Your task to perform on an android device: Search for Mexican restaurants on Maps Image 0: 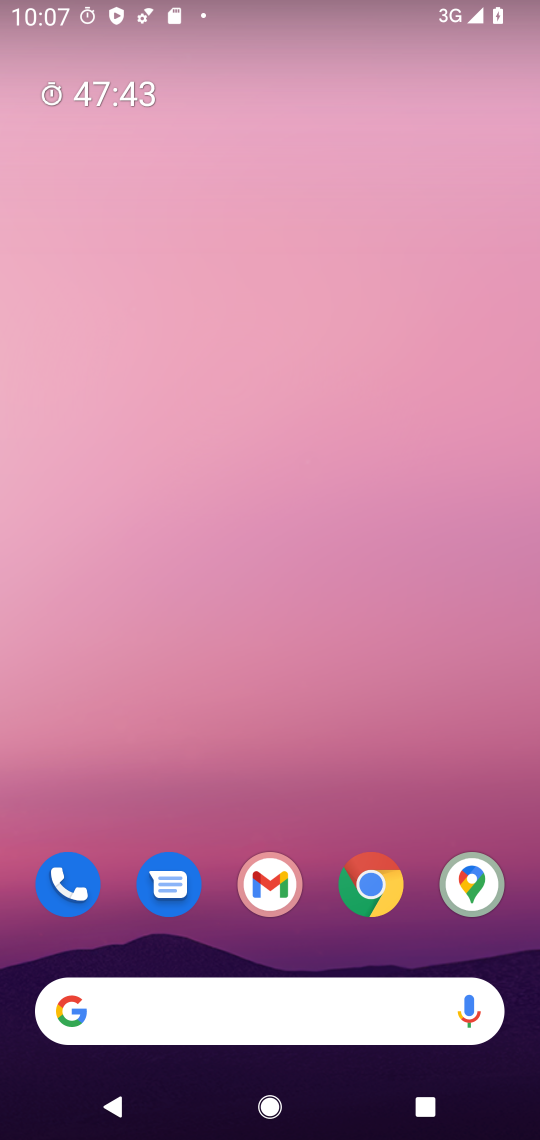
Step 0: click (470, 858)
Your task to perform on an android device: Search for Mexican restaurants on Maps Image 1: 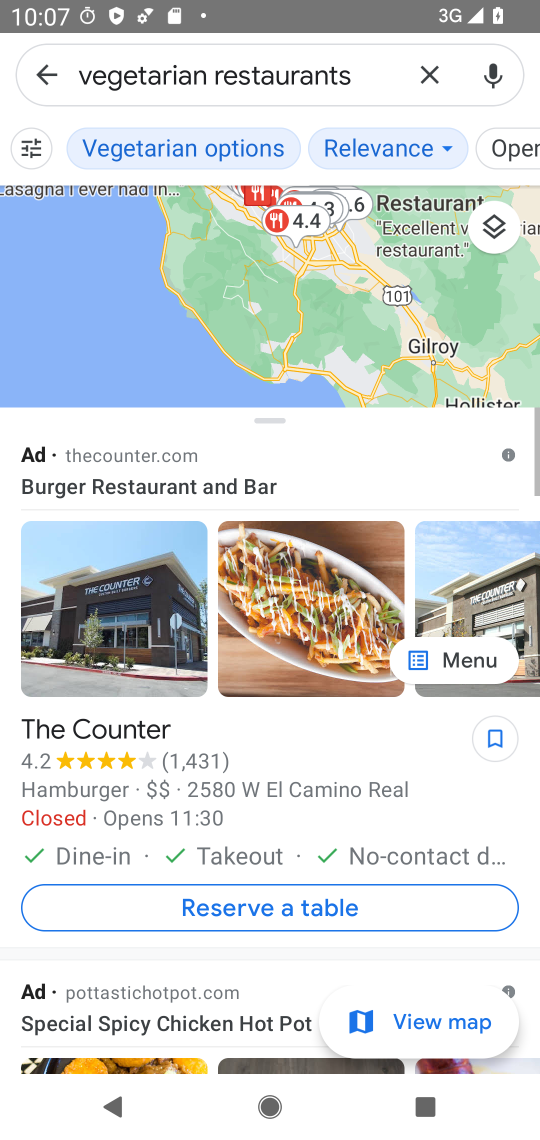
Step 1: click (423, 75)
Your task to perform on an android device: Search for Mexican restaurants on Maps Image 2: 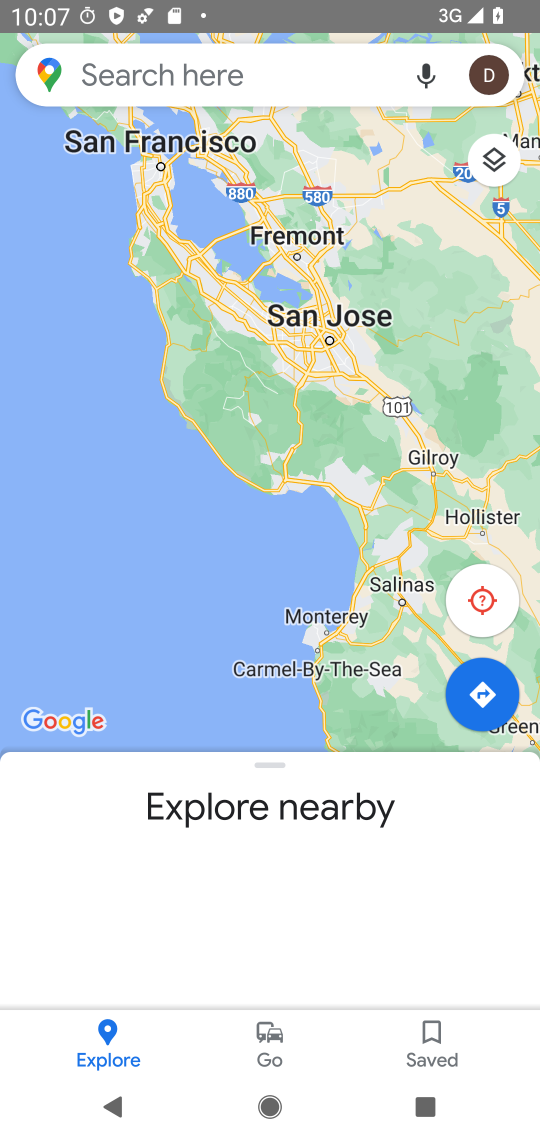
Step 2: click (356, 69)
Your task to perform on an android device: Search for Mexican restaurants on Maps Image 3: 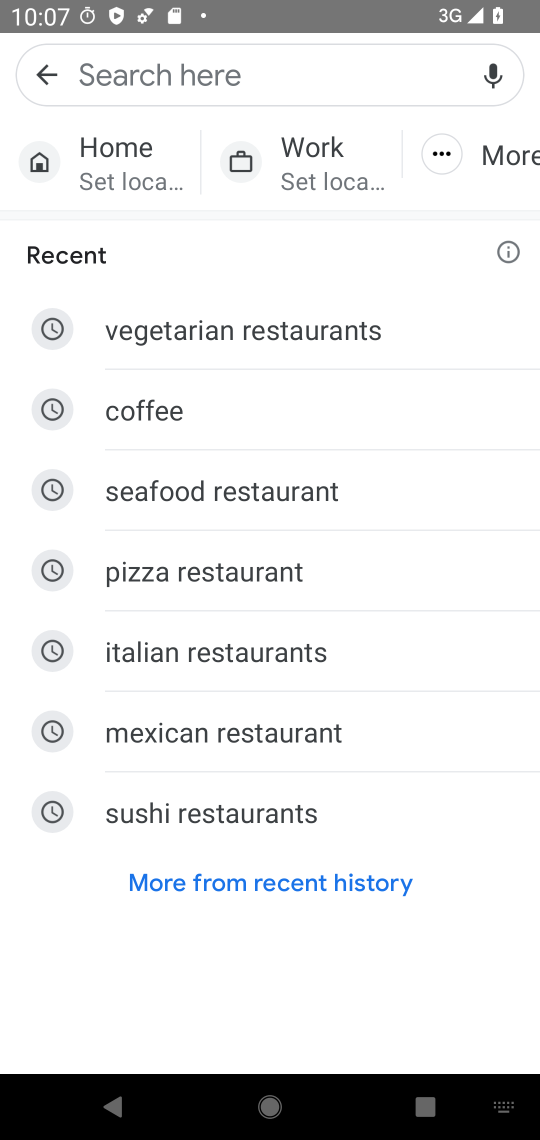
Step 3: click (232, 733)
Your task to perform on an android device: Search for Mexican restaurants on Maps Image 4: 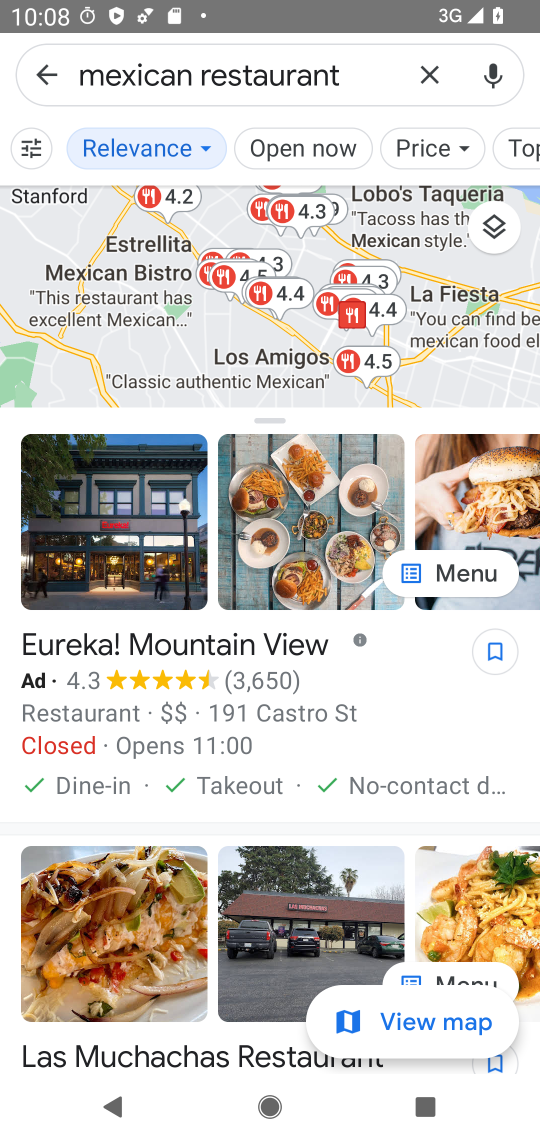
Step 4: task complete